Your task to perform on an android device: Go to eBay Image 0: 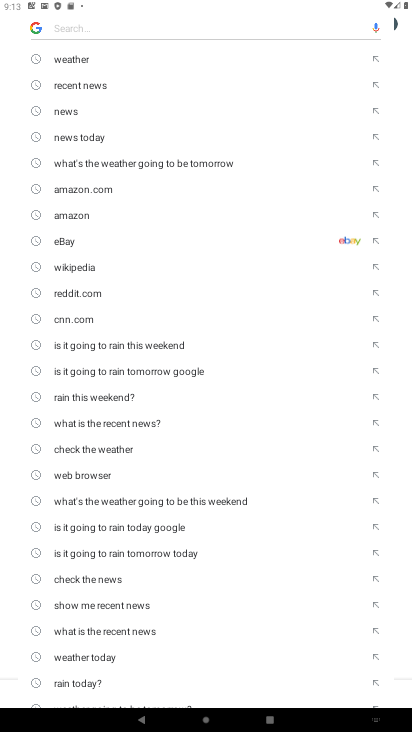
Step 0: drag from (202, 606) to (214, 226)
Your task to perform on an android device: Go to eBay Image 1: 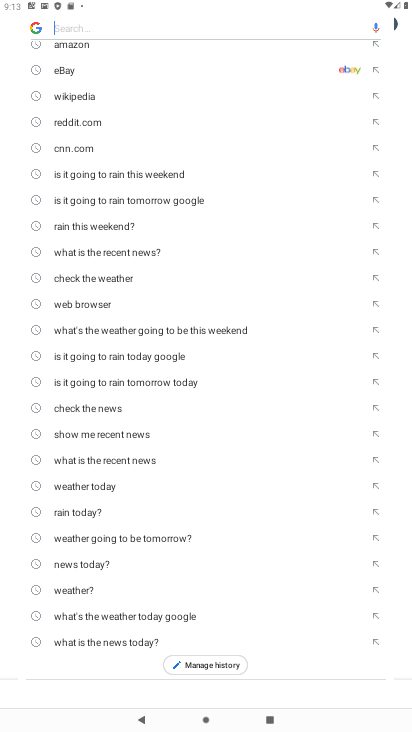
Step 1: drag from (221, 209) to (206, 717)
Your task to perform on an android device: Go to eBay Image 2: 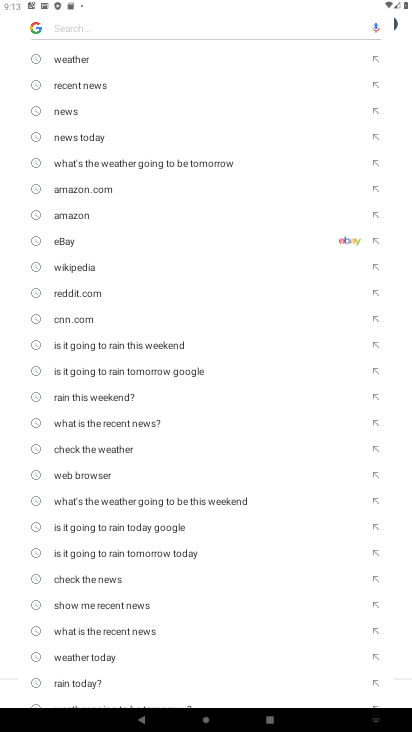
Step 2: click (123, 244)
Your task to perform on an android device: Go to eBay Image 3: 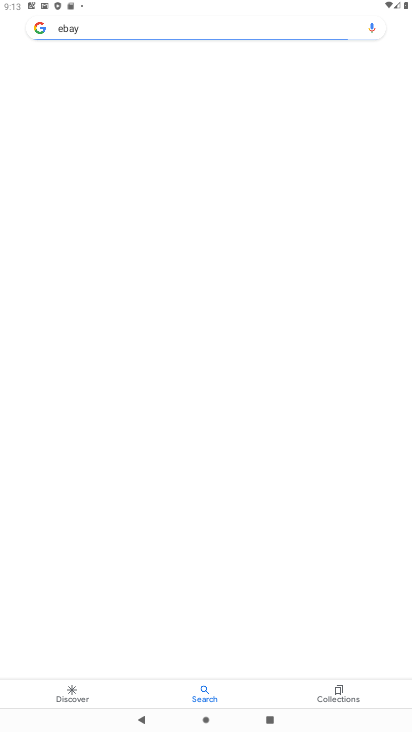
Step 3: drag from (200, 587) to (226, 294)
Your task to perform on an android device: Go to eBay Image 4: 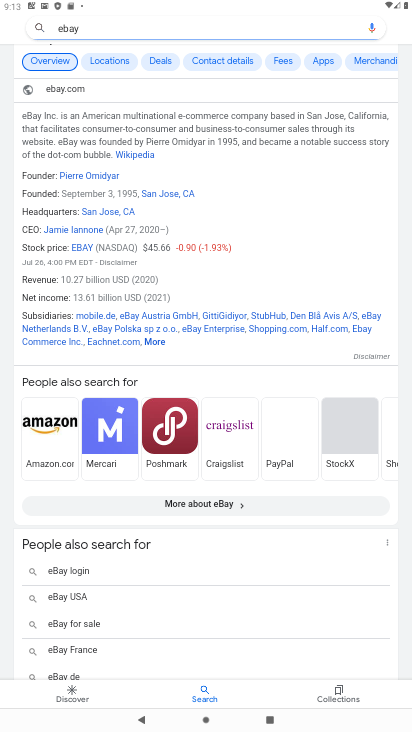
Step 4: drag from (300, 159) to (265, 520)
Your task to perform on an android device: Go to eBay Image 5: 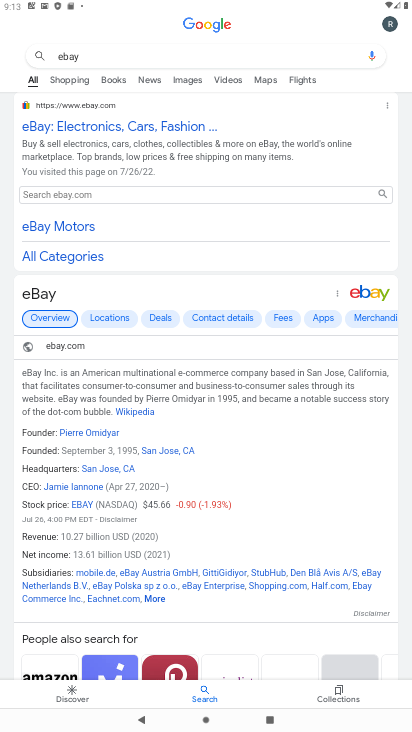
Step 5: drag from (208, 192) to (235, 593)
Your task to perform on an android device: Go to eBay Image 6: 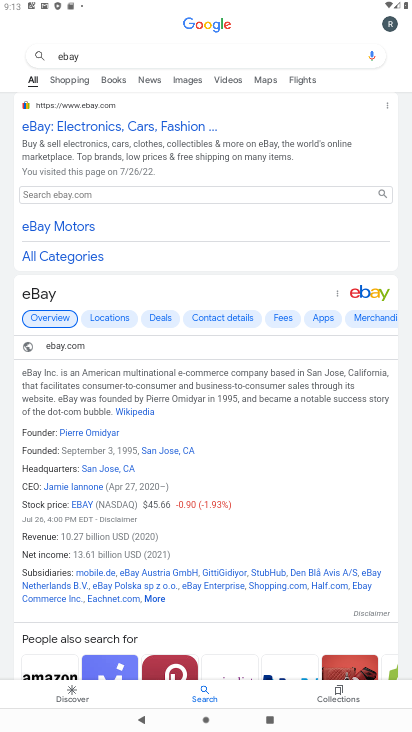
Step 6: click (113, 134)
Your task to perform on an android device: Go to eBay Image 7: 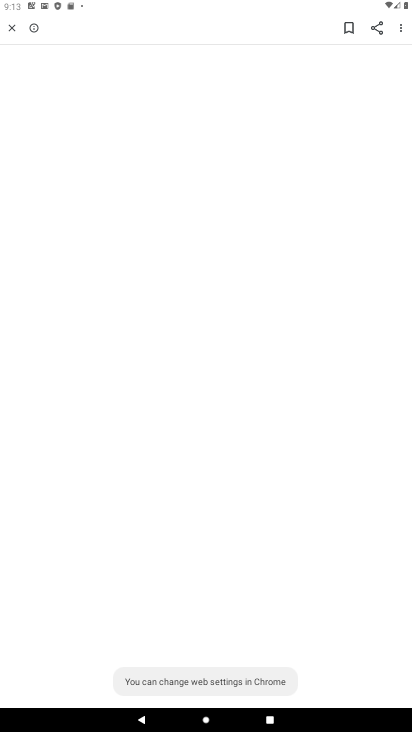
Step 7: task complete